Your task to perform on an android device: remove spam from my inbox in the gmail app Image 0: 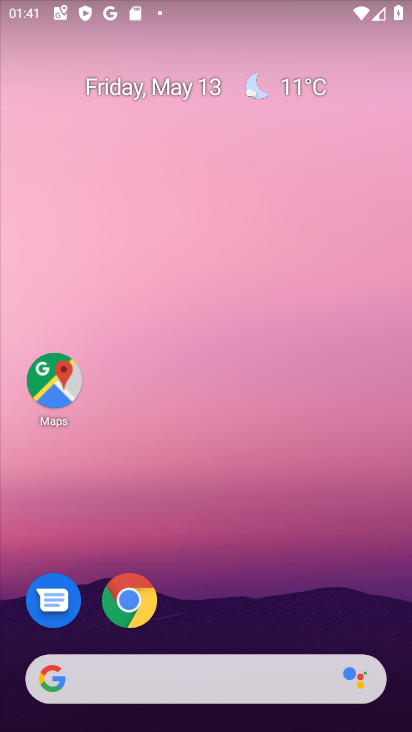
Step 0: drag from (186, 627) to (251, 174)
Your task to perform on an android device: remove spam from my inbox in the gmail app Image 1: 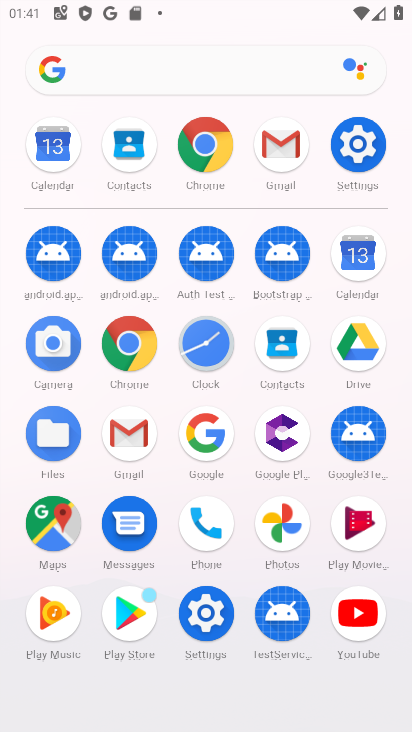
Step 1: click (108, 420)
Your task to perform on an android device: remove spam from my inbox in the gmail app Image 2: 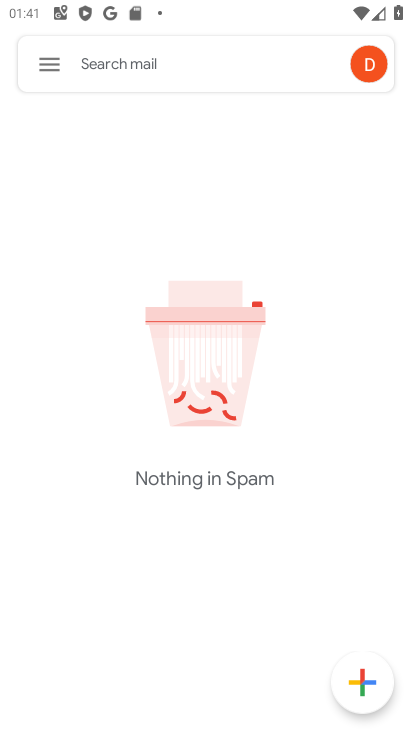
Step 2: drag from (199, 584) to (227, 265)
Your task to perform on an android device: remove spam from my inbox in the gmail app Image 3: 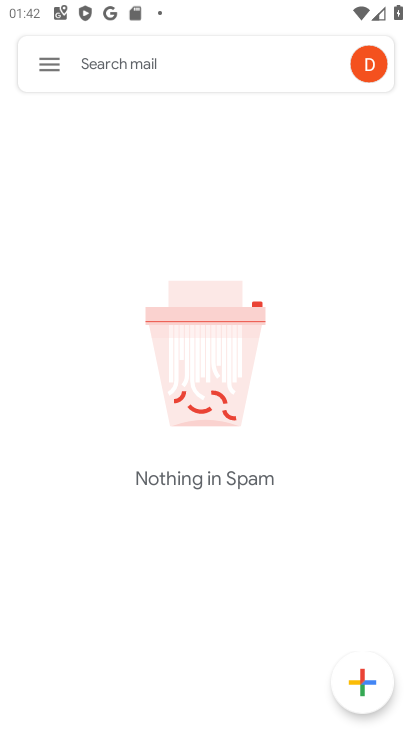
Step 3: click (46, 55)
Your task to perform on an android device: remove spam from my inbox in the gmail app Image 4: 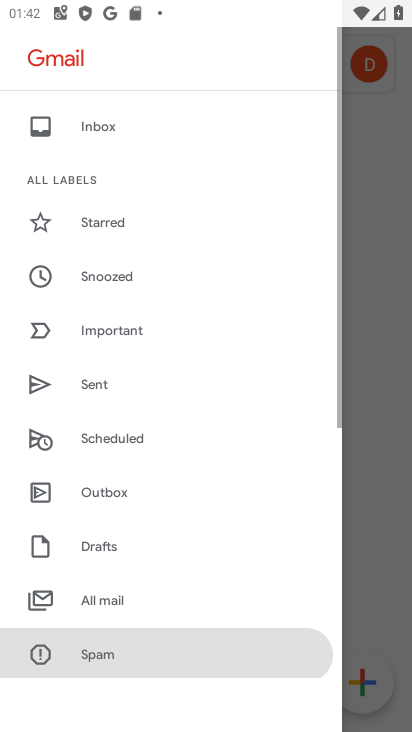
Step 4: drag from (148, 587) to (213, 202)
Your task to perform on an android device: remove spam from my inbox in the gmail app Image 5: 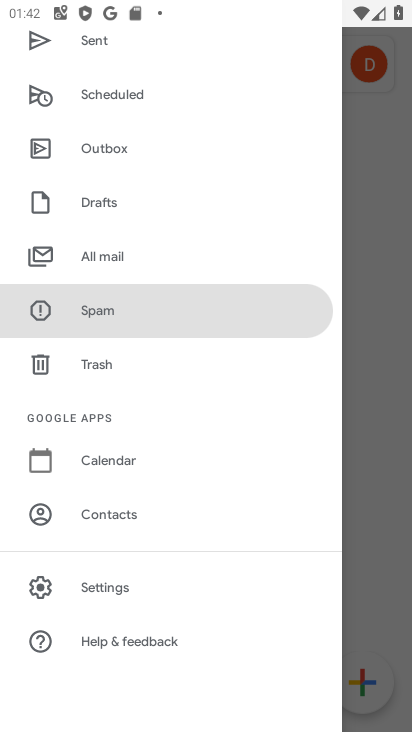
Step 5: click (124, 313)
Your task to perform on an android device: remove spam from my inbox in the gmail app Image 6: 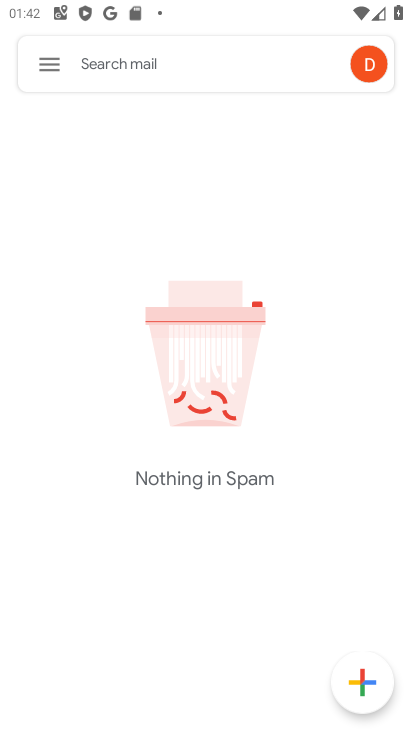
Step 6: task complete